Your task to perform on an android device: Search for "usb-a to usb-b" on amazon.com, select the first entry, add it to the cart, then select checkout. Image 0: 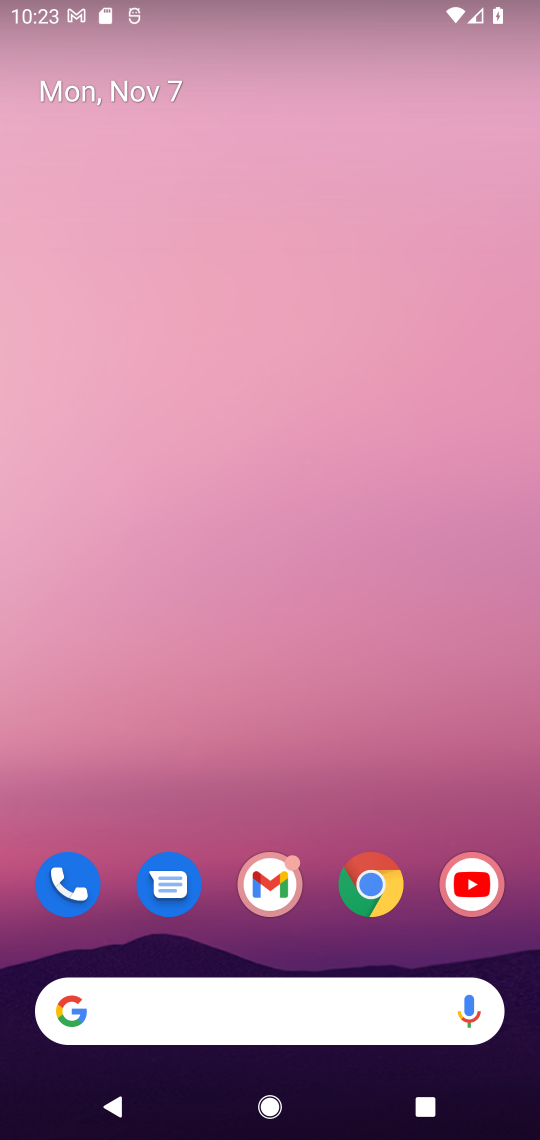
Step 0: click (363, 881)
Your task to perform on an android device: Search for "usb-a to usb-b" on amazon.com, select the first entry, add it to the cart, then select checkout. Image 1: 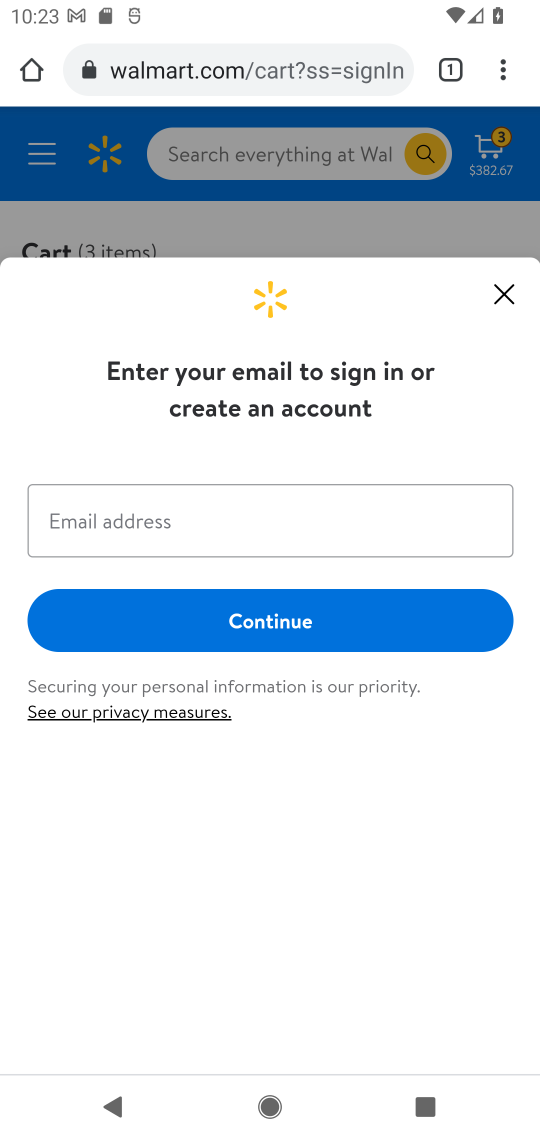
Step 1: click (27, 65)
Your task to perform on an android device: Search for "usb-a to usb-b" on amazon.com, select the first entry, add it to the cart, then select checkout. Image 2: 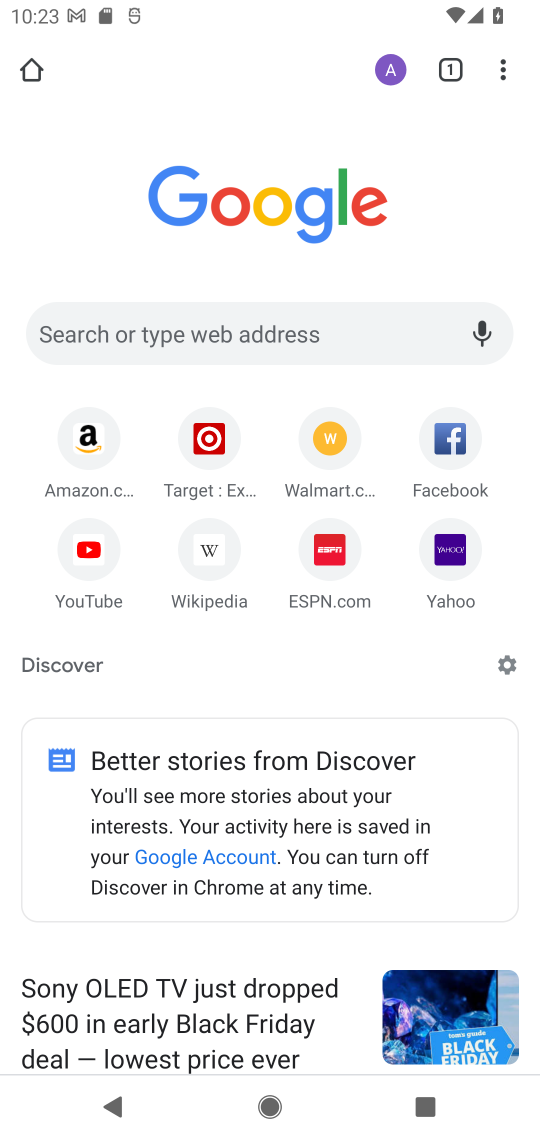
Step 2: click (98, 442)
Your task to perform on an android device: Search for "usb-a to usb-b" on amazon.com, select the first entry, add it to the cart, then select checkout. Image 3: 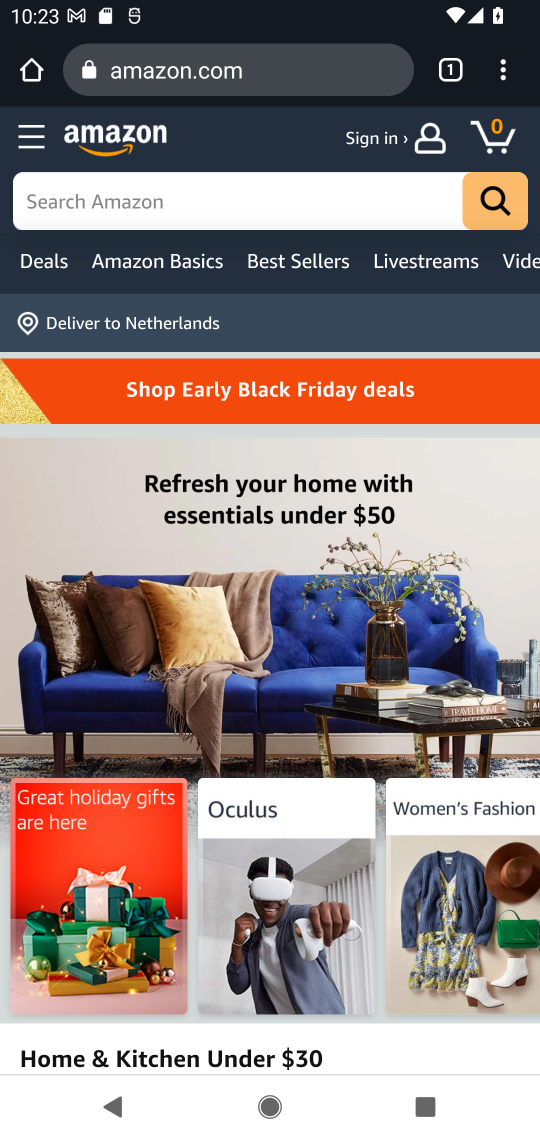
Step 3: click (291, 188)
Your task to perform on an android device: Search for "usb-a to usb-b" on amazon.com, select the first entry, add it to the cart, then select checkout. Image 4: 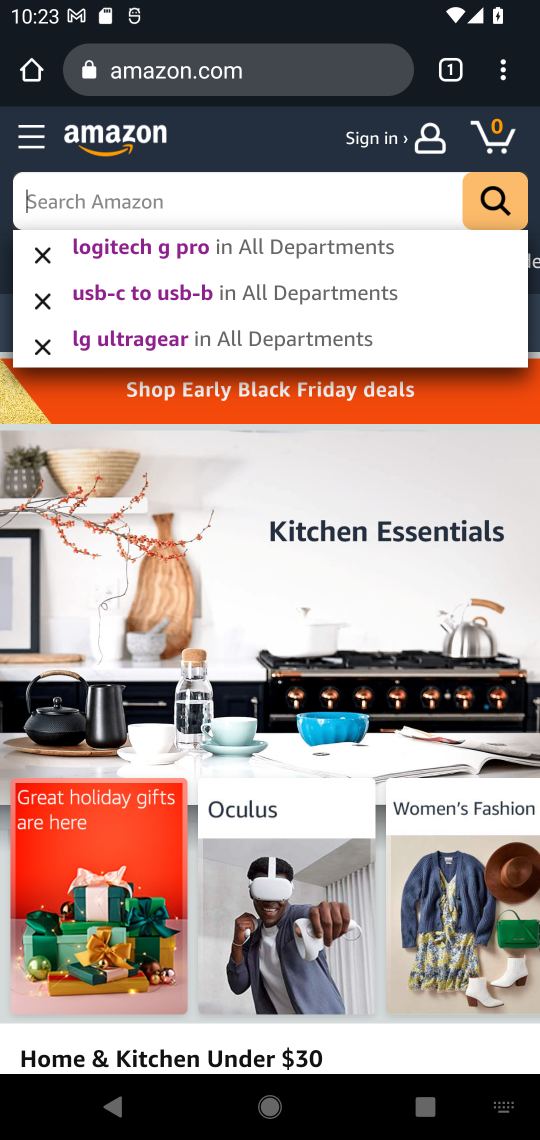
Step 4: type "usb-a to usb-b"
Your task to perform on an android device: Search for "usb-a to usb-b" on amazon.com, select the first entry, add it to the cart, then select checkout. Image 5: 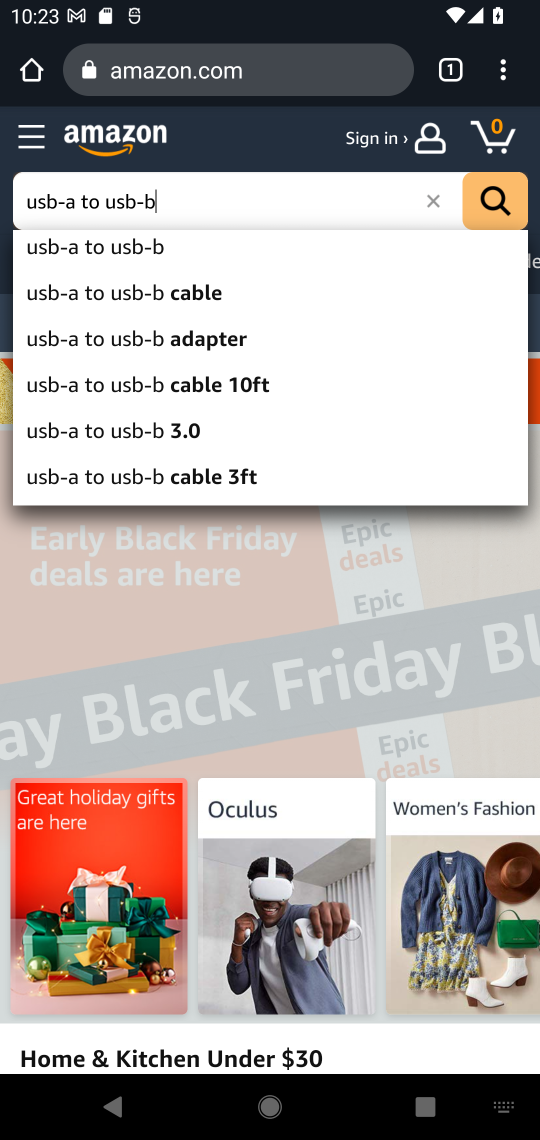
Step 5: click (106, 245)
Your task to perform on an android device: Search for "usb-a to usb-b" on amazon.com, select the first entry, add it to the cart, then select checkout. Image 6: 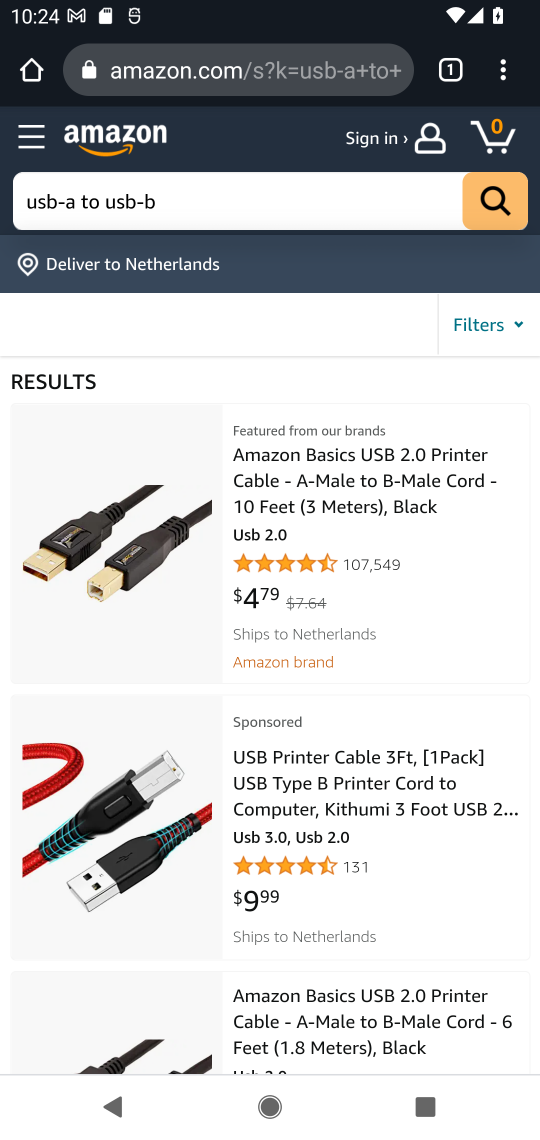
Step 6: click (129, 583)
Your task to perform on an android device: Search for "usb-a to usb-b" on amazon.com, select the first entry, add it to the cart, then select checkout. Image 7: 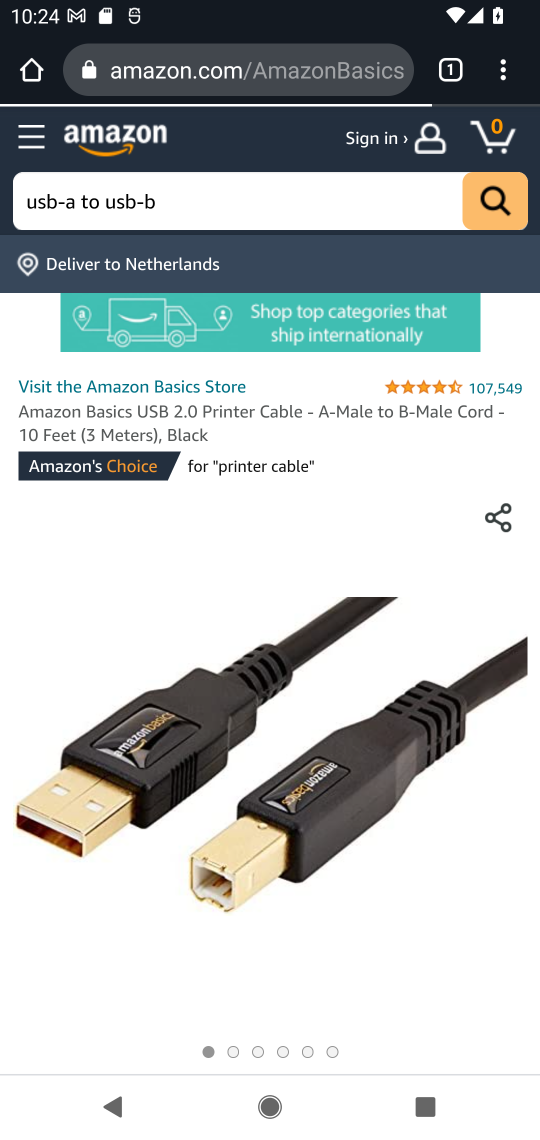
Step 7: drag from (368, 858) to (286, 317)
Your task to perform on an android device: Search for "usb-a to usb-b" on amazon.com, select the first entry, add it to the cart, then select checkout. Image 8: 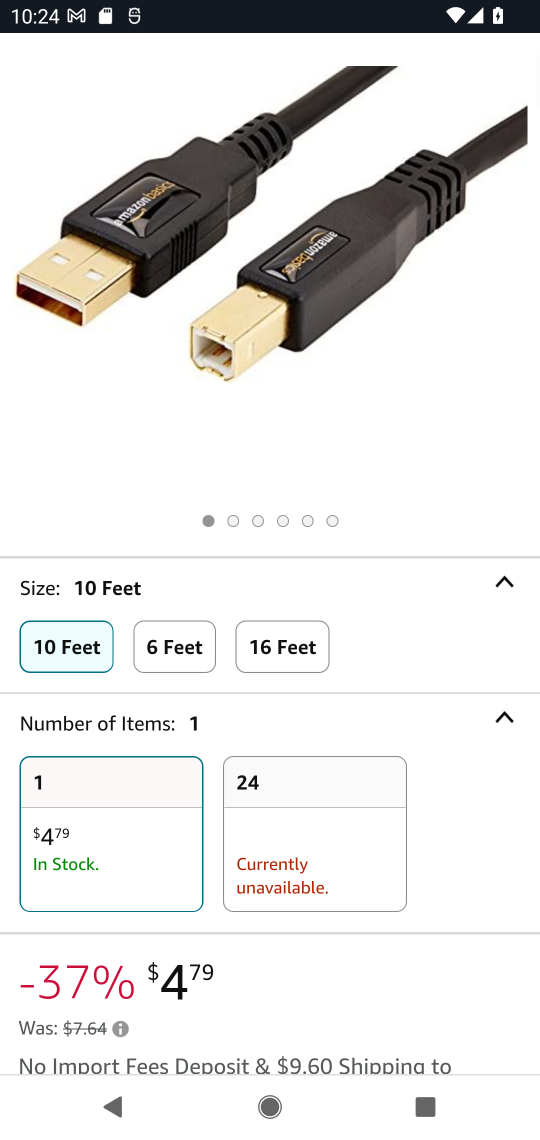
Step 8: drag from (461, 914) to (395, 277)
Your task to perform on an android device: Search for "usb-a to usb-b" on amazon.com, select the first entry, add it to the cart, then select checkout. Image 9: 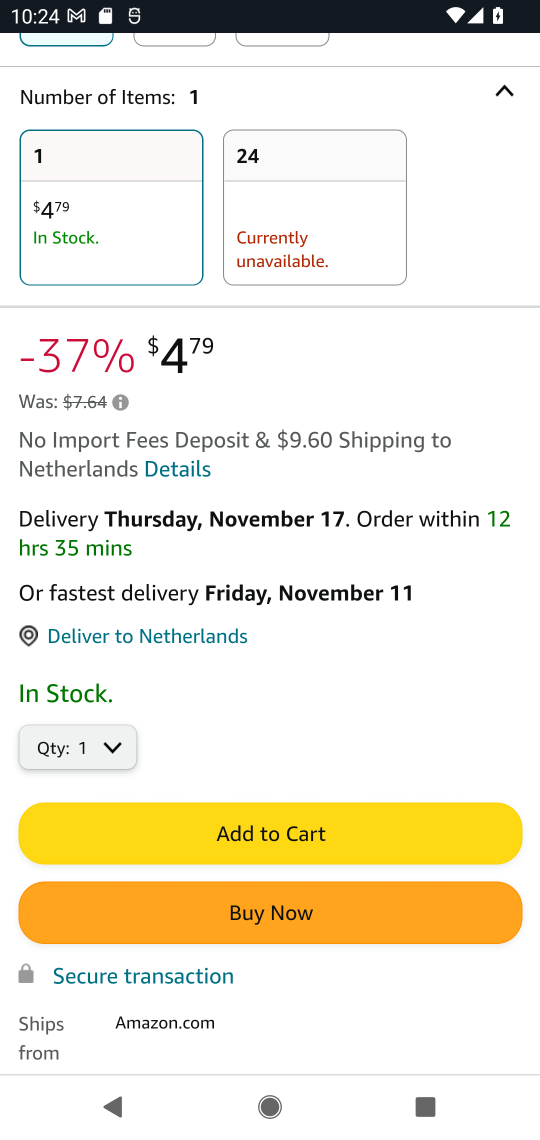
Step 9: click (291, 839)
Your task to perform on an android device: Search for "usb-a to usb-b" on amazon.com, select the first entry, add it to the cart, then select checkout. Image 10: 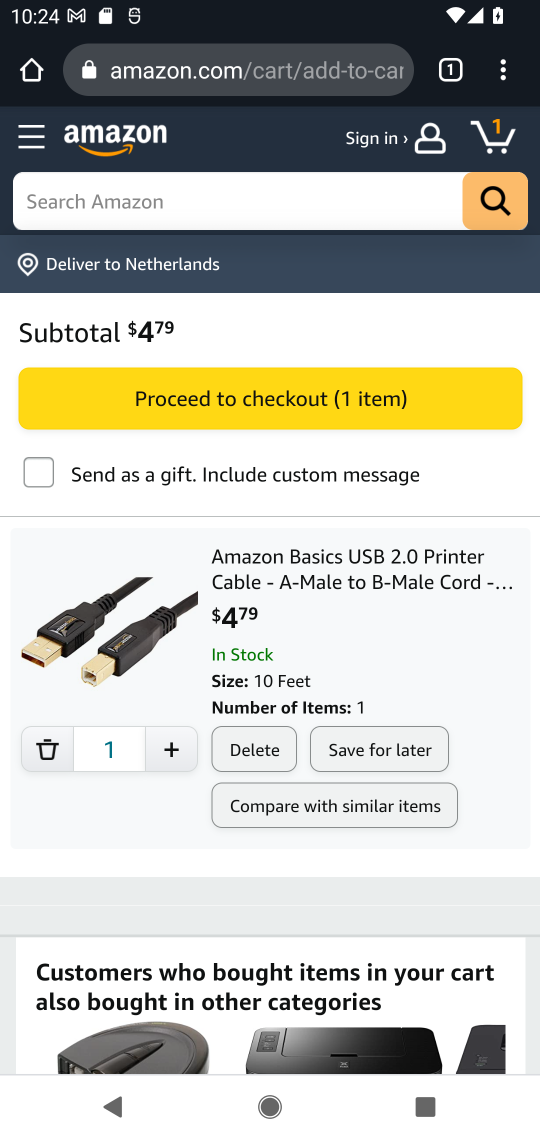
Step 10: click (334, 395)
Your task to perform on an android device: Search for "usb-a to usb-b" on amazon.com, select the first entry, add it to the cart, then select checkout. Image 11: 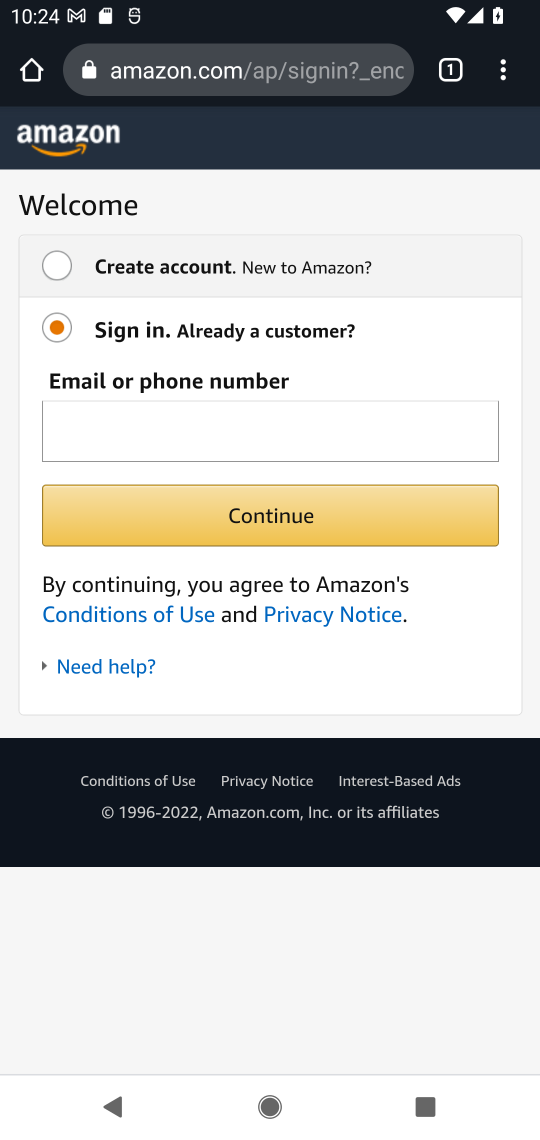
Step 11: task complete